Your task to perform on an android device: Open calendar and show me the first week of next month Image 0: 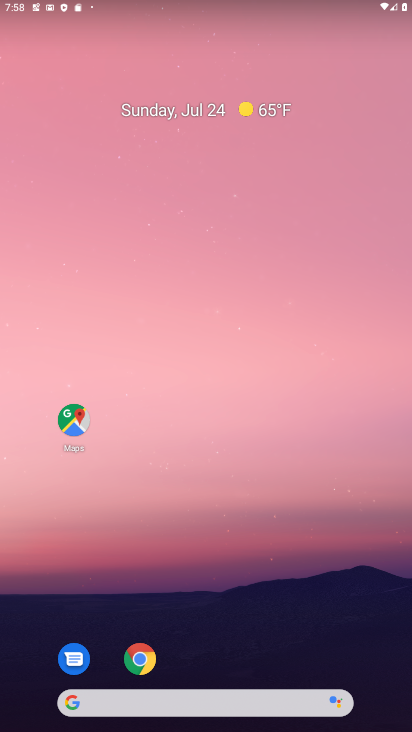
Step 0: drag from (330, 675) to (327, 38)
Your task to perform on an android device: Open calendar and show me the first week of next month Image 1: 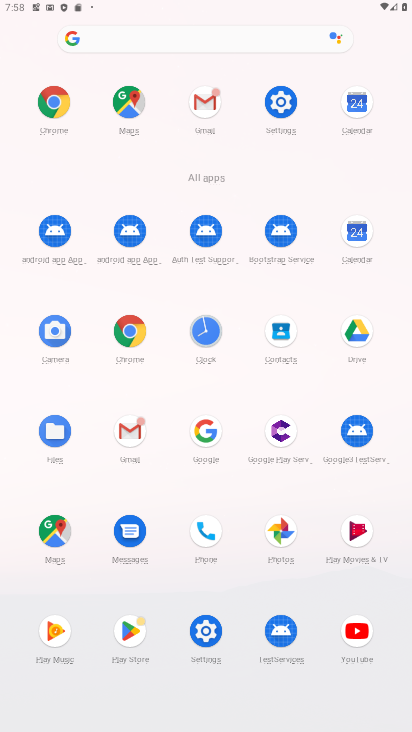
Step 1: click (358, 114)
Your task to perform on an android device: Open calendar and show me the first week of next month Image 2: 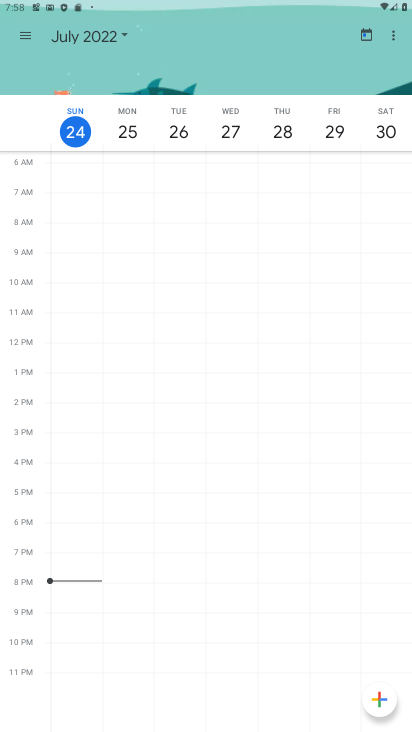
Step 2: click (124, 37)
Your task to perform on an android device: Open calendar and show me the first week of next month Image 3: 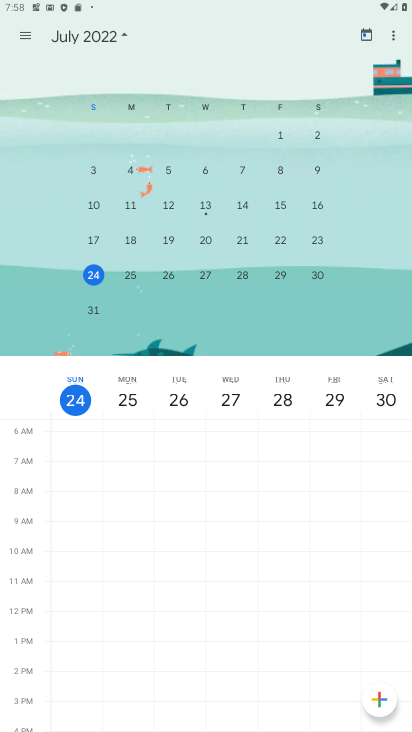
Step 3: drag from (362, 249) to (25, 336)
Your task to perform on an android device: Open calendar and show me the first week of next month Image 4: 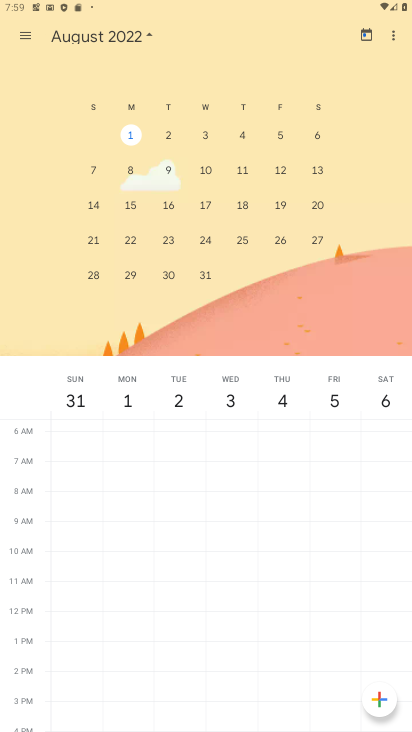
Step 4: click (19, 34)
Your task to perform on an android device: Open calendar and show me the first week of next month Image 5: 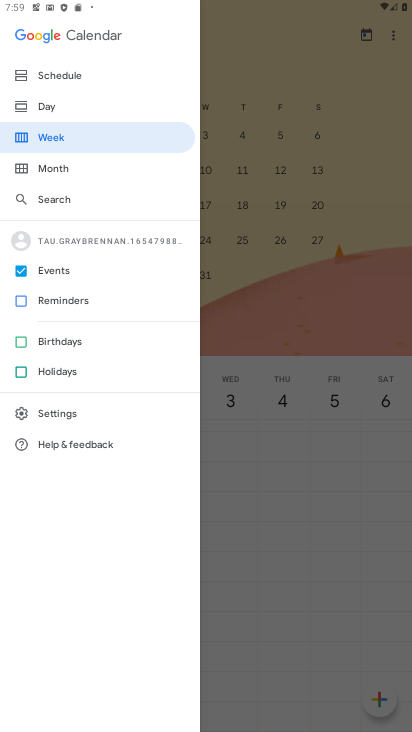
Step 5: click (41, 137)
Your task to perform on an android device: Open calendar and show me the first week of next month Image 6: 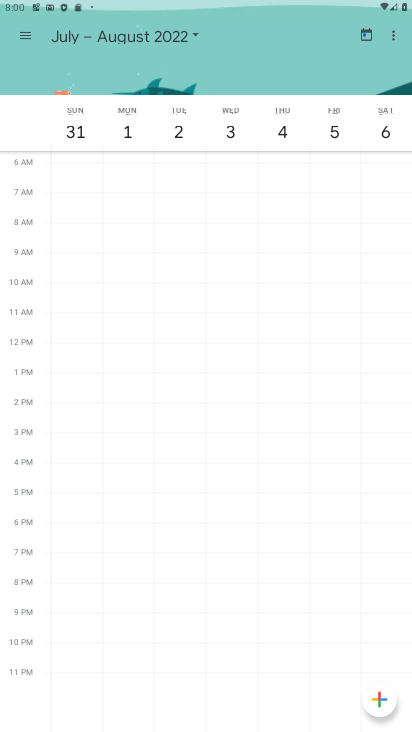
Step 6: task complete